Your task to perform on an android device: all mails in gmail Image 0: 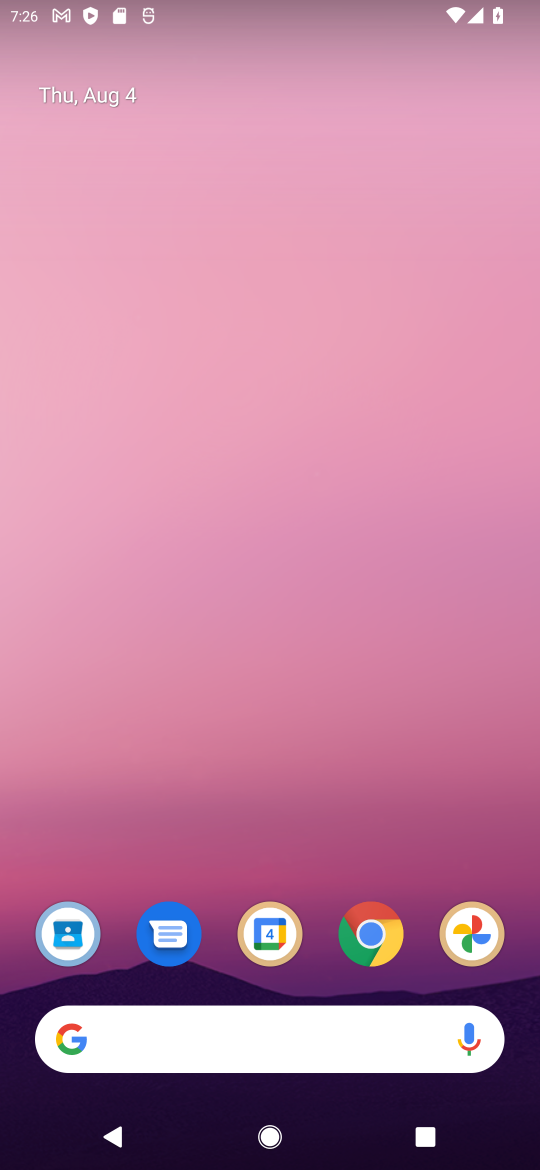
Step 0: drag from (282, 1032) to (274, 255)
Your task to perform on an android device: all mails in gmail Image 1: 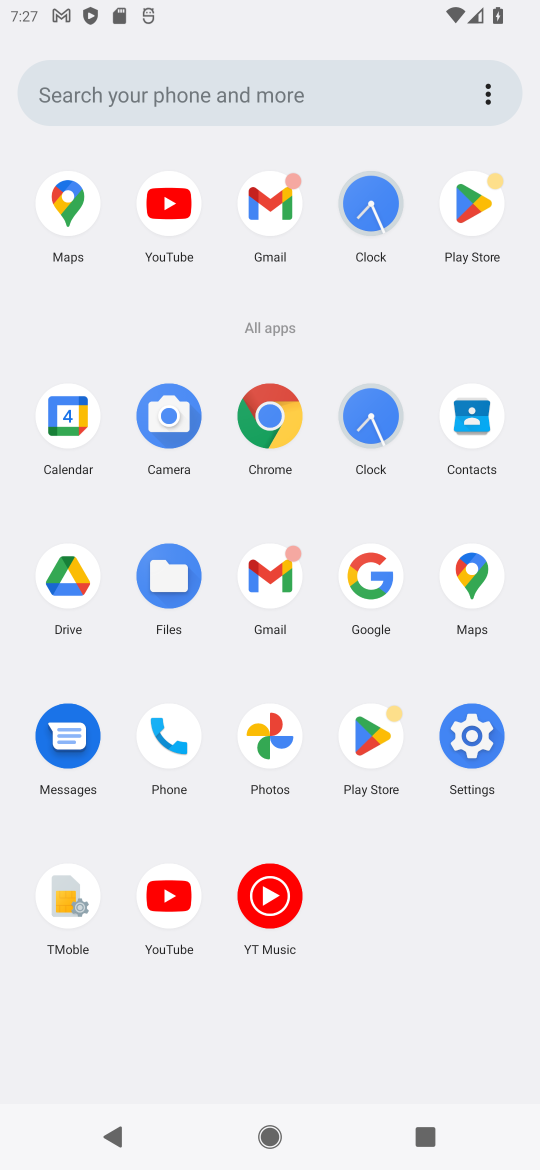
Step 1: click (271, 592)
Your task to perform on an android device: all mails in gmail Image 2: 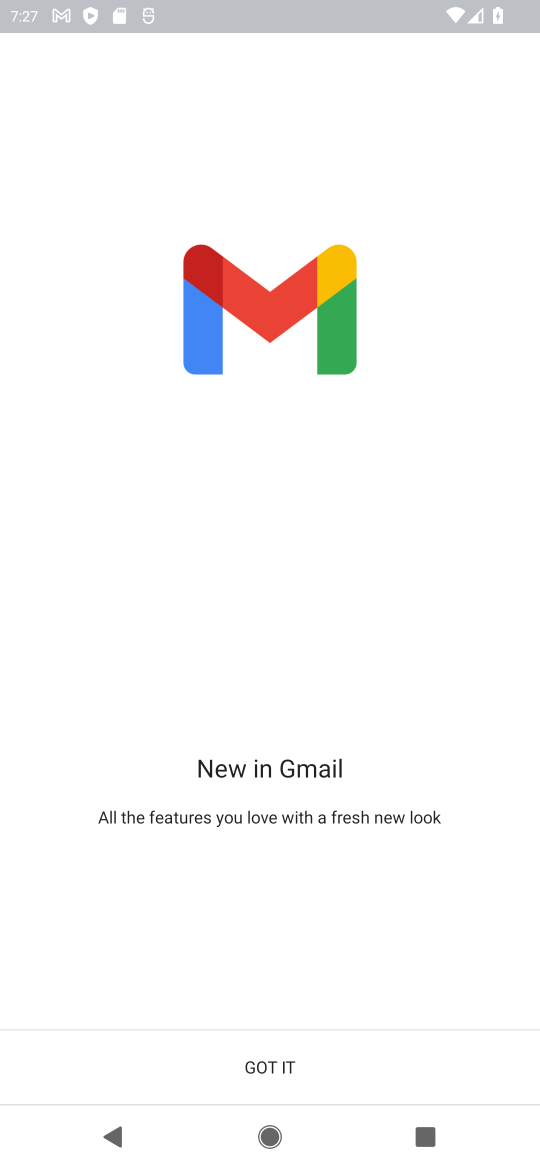
Step 2: click (306, 1072)
Your task to perform on an android device: all mails in gmail Image 3: 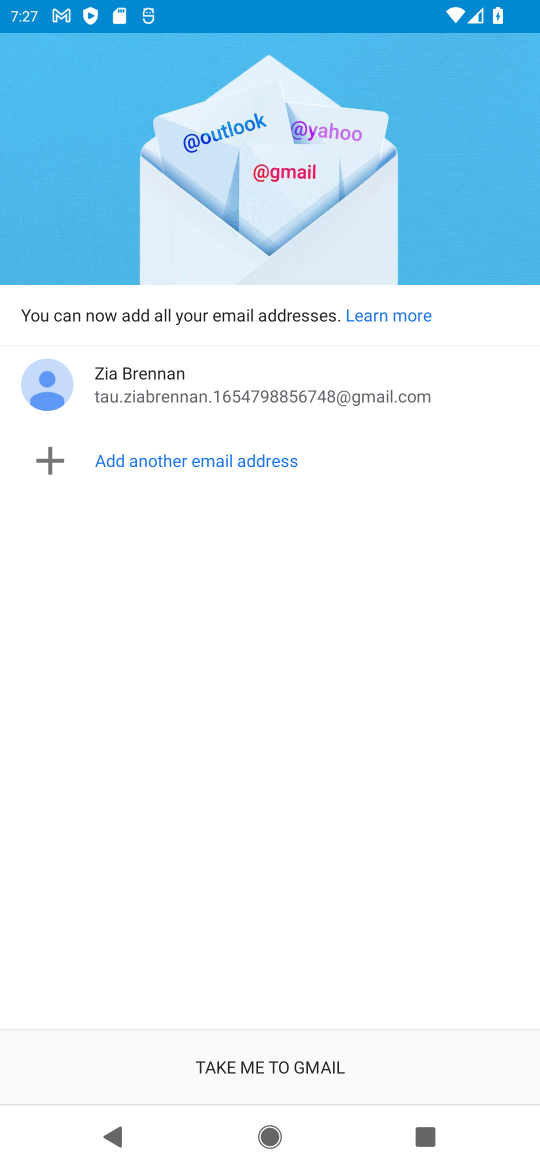
Step 3: click (306, 1072)
Your task to perform on an android device: all mails in gmail Image 4: 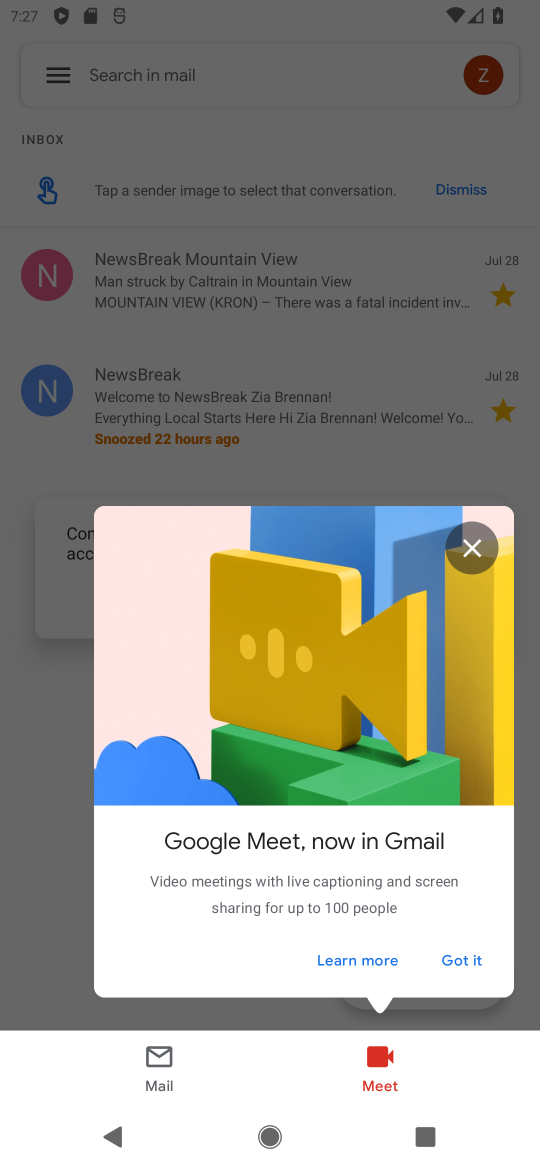
Step 4: click (467, 549)
Your task to perform on an android device: all mails in gmail Image 5: 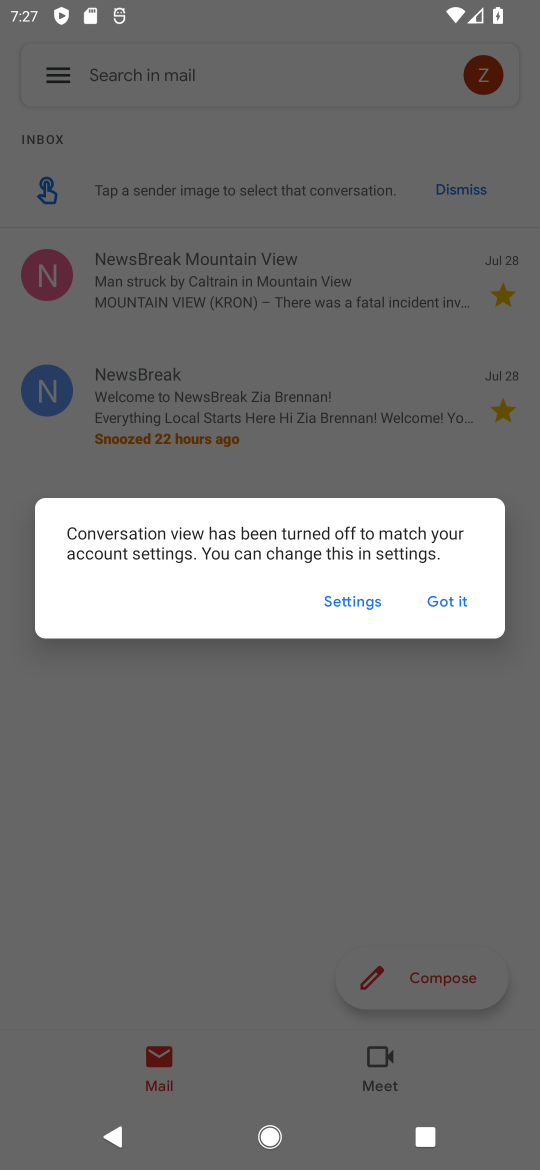
Step 5: click (439, 600)
Your task to perform on an android device: all mails in gmail Image 6: 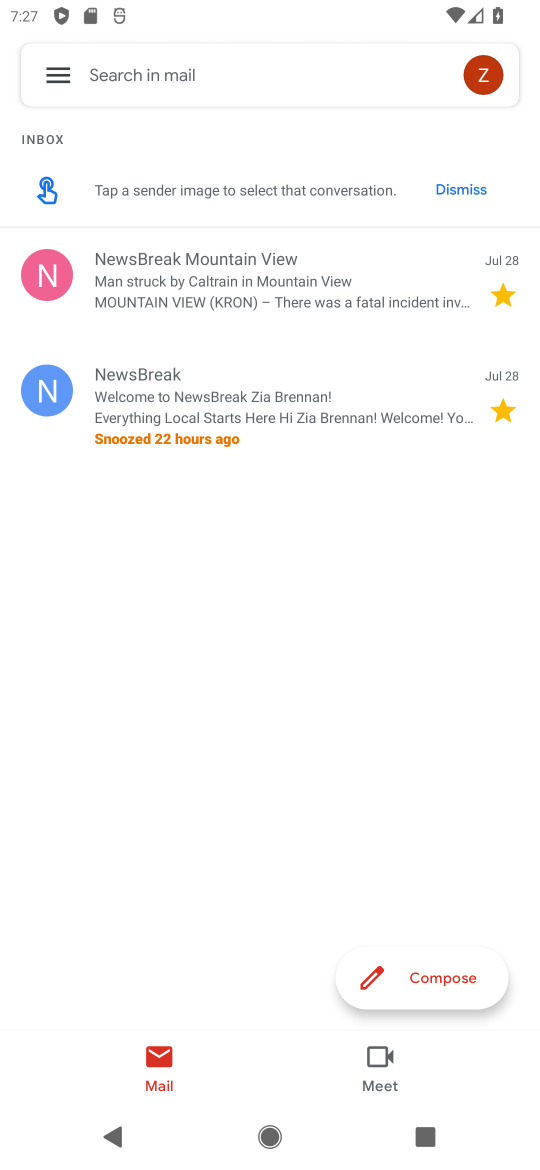
Step 6: click (60, 80)
Your task to perform on an android device: all mails in gmail Image 7: 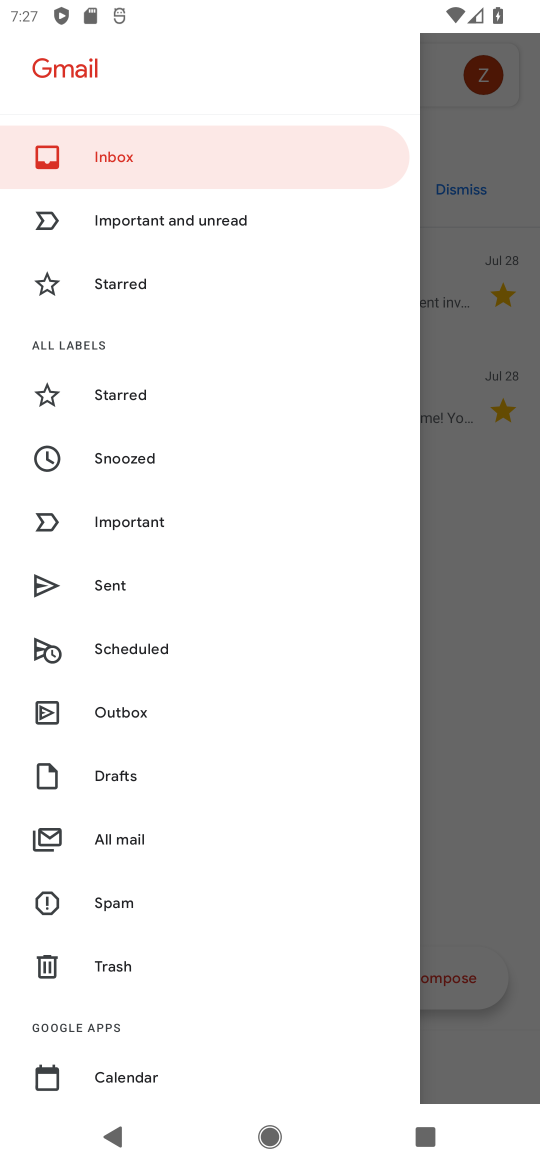
Step 7: click (121, 838)
Your task to perform on an android device: all mails in gmail Image 8: 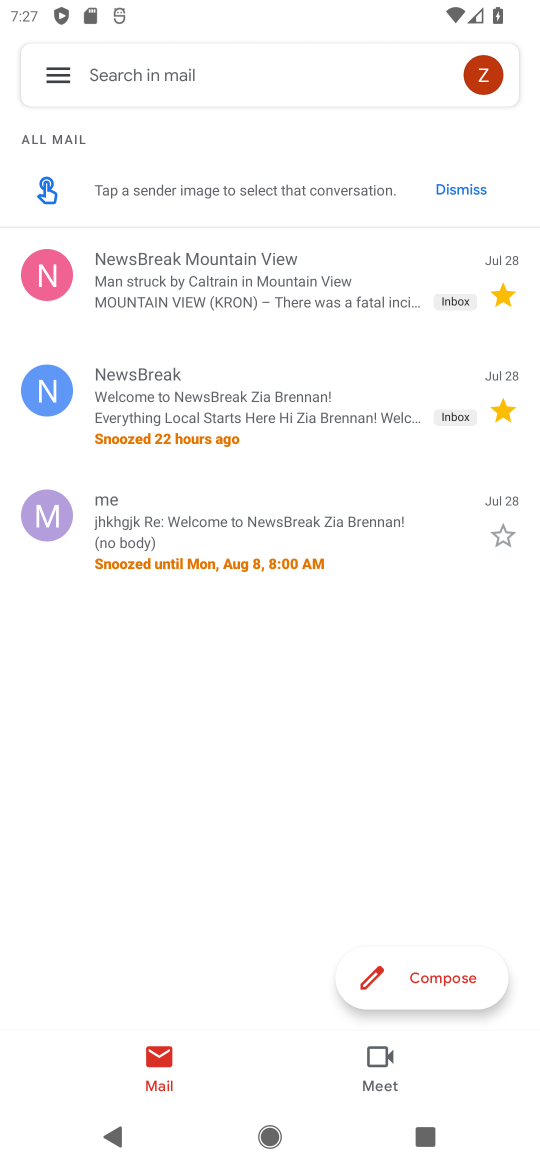
Step 8: task complete